Your task to perform on an android device: change notification settings in the gmail app Image 0: 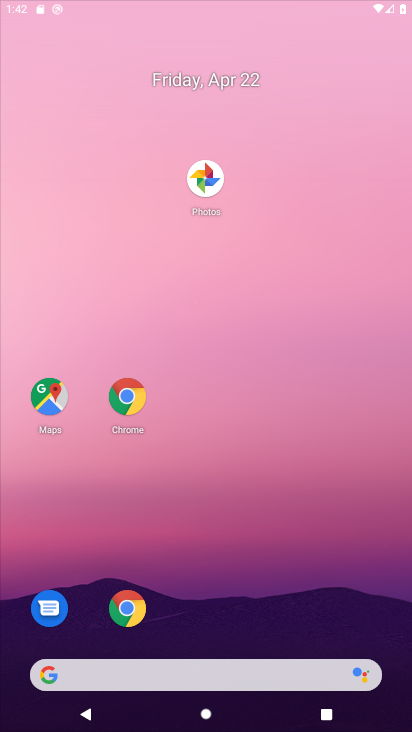
Step 0: click (281, 254)
Your task to perform on an android device: change notification settings in the gmail app Image 1: 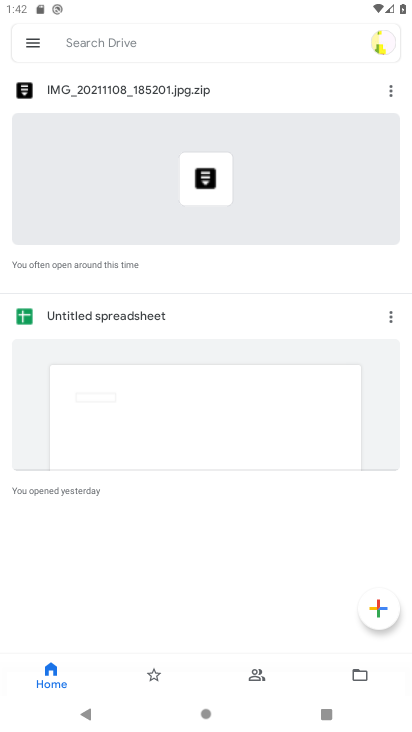
Step 1: press home button
Your task to perform on an android device: change notification settings in the gmail app Image 2: 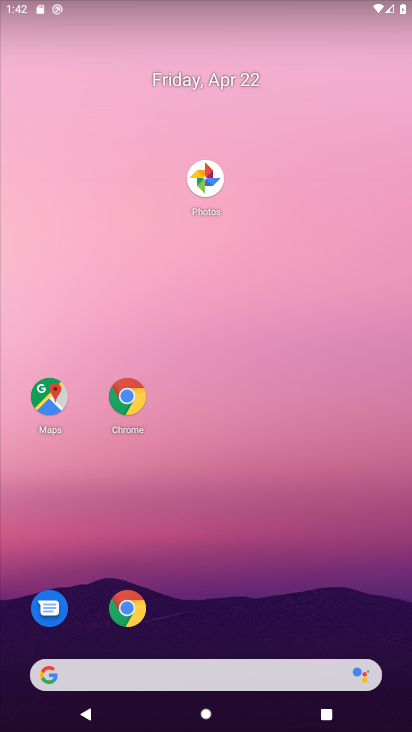
Step 2: drag from (223, 631) to (240, 122)
Your task to perform on an android device: change notification settings in the gmail app Image 3: 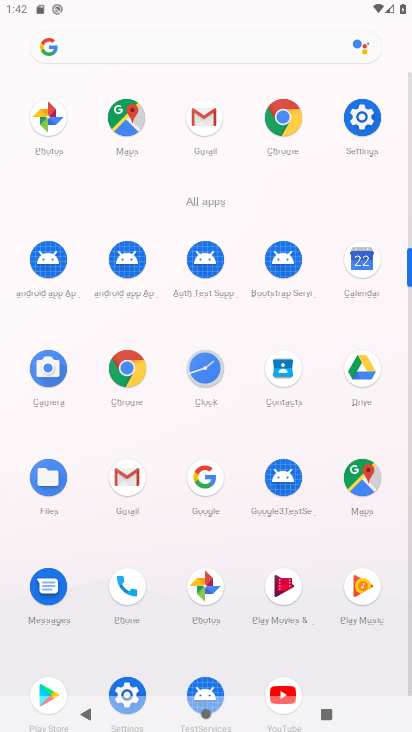
Step 3: drag from (226, 568) to (264, 43)
Your task to perform on an android device: change notification settings in the gmail app Image 4: 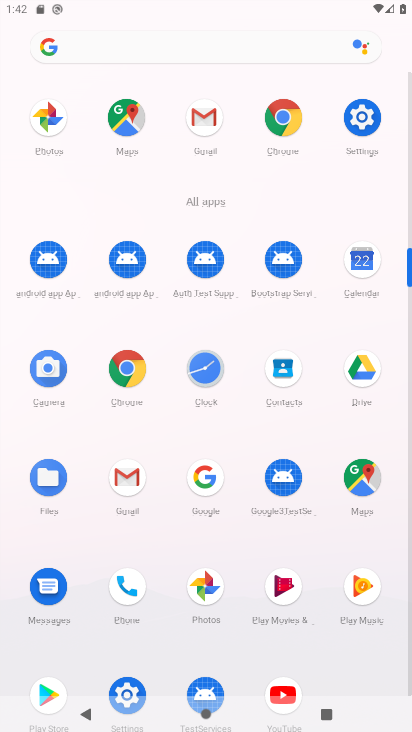
Step 4: click (121, 469)
Your task to perform on an android device: change notification settings in the gmail app Image 5: 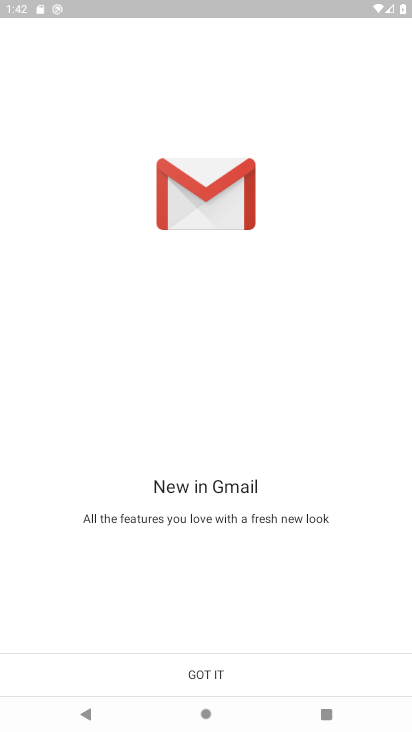
Step 5: click (206, 662)
Your task to perform on an android device: change notification settings in the gmail app Image 6: 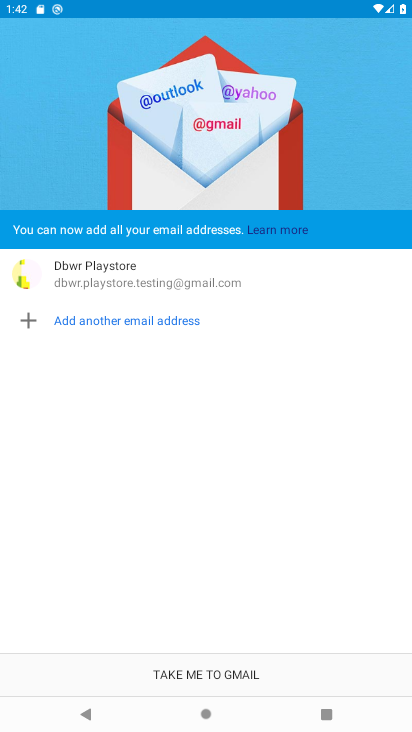
Step 6: click (202, 667)
Your task to perform on an android device: change notification settings in the gmail app Image 7: 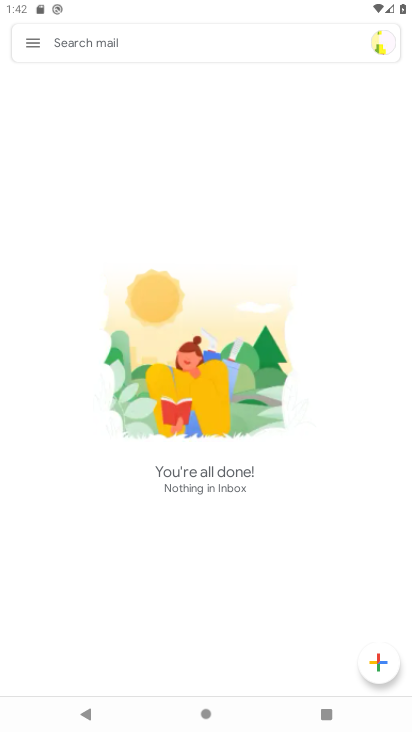
Step 7: click (30, 45)
Your task to perform on an android device: change notification settings in the gmail app Image 8: 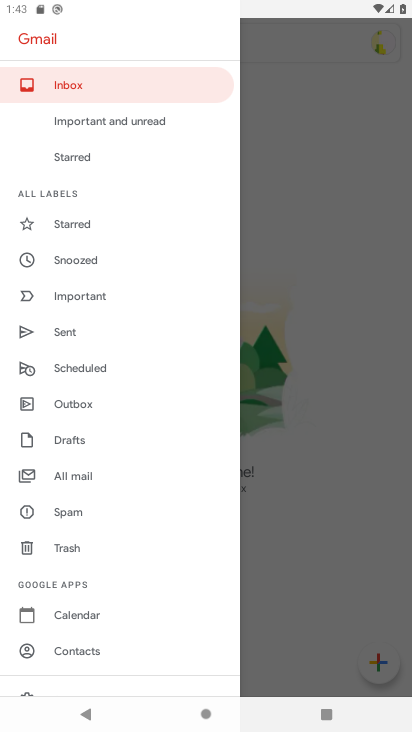
Step 8: drag from (112, 616) to (82, 263)
Your task to perform on an android device: change notification settings in the gmail app Image 9: 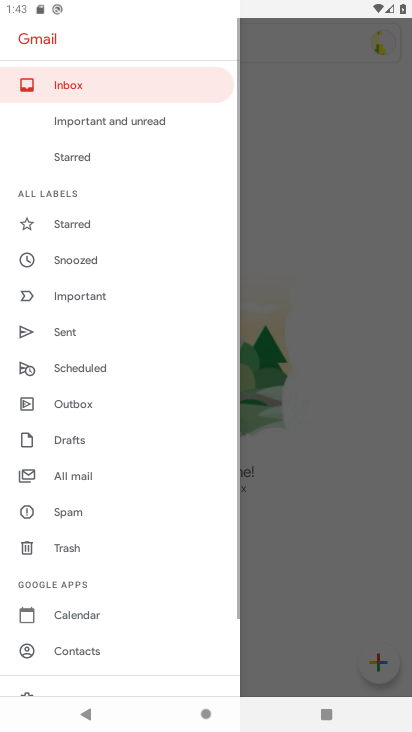
Step 9: drag from (99, 613) to (121, 176)
Your task to perform on an android device: change notification settings in the gmail app Image 10: 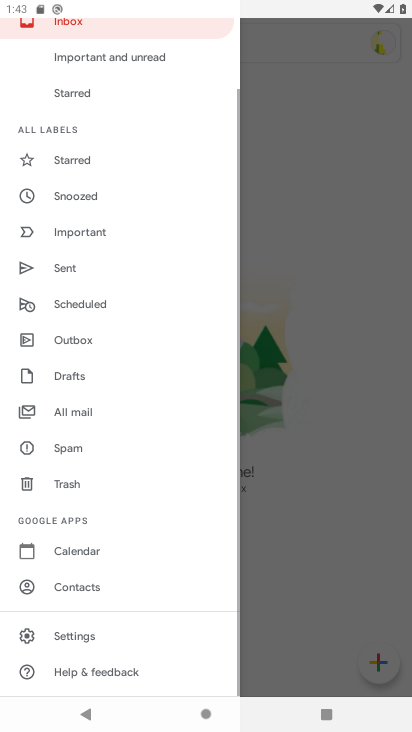
Step 10: drag from (81, 551) to (86, 87)
Your task to perform on an android device: change notification settings in the gmail app Image 11: 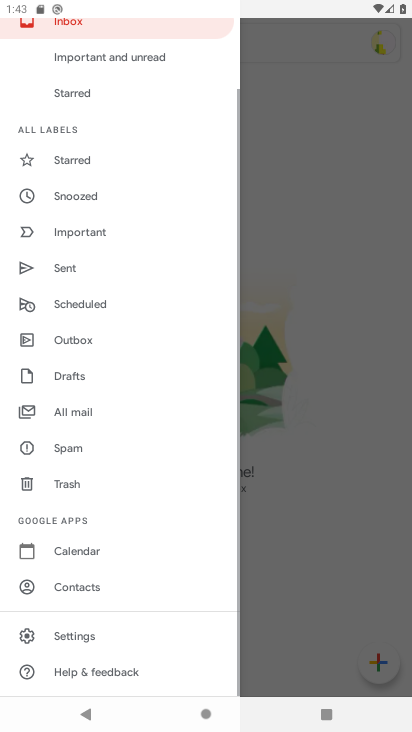
Step 11: click (81, 637)
Your task to perform on an android device: change notification settings in the gmail app Image 12: 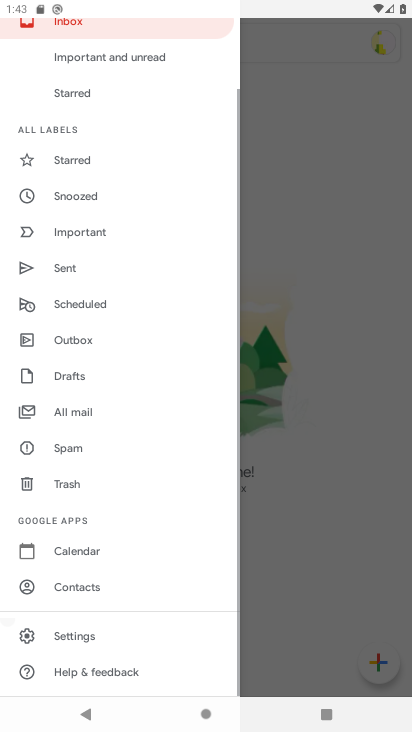
Step 12: click (81, 638)
Your task to perform on an android device: change notification settings in the gmail app Image 13: 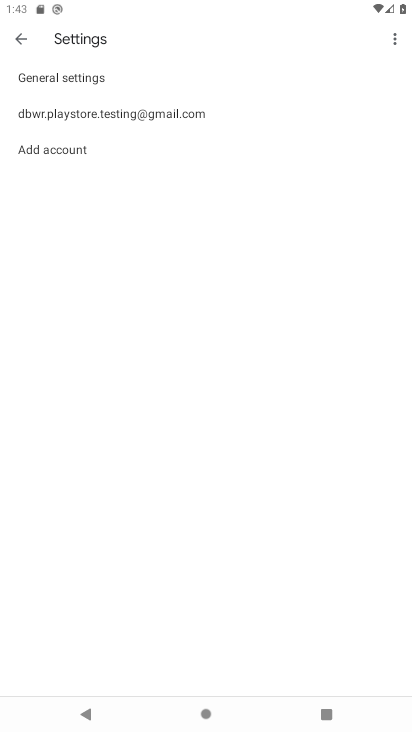
Step 13: click (102, 110)
Your task to perform on an android device: change notification settings in the gmail app Image 14: 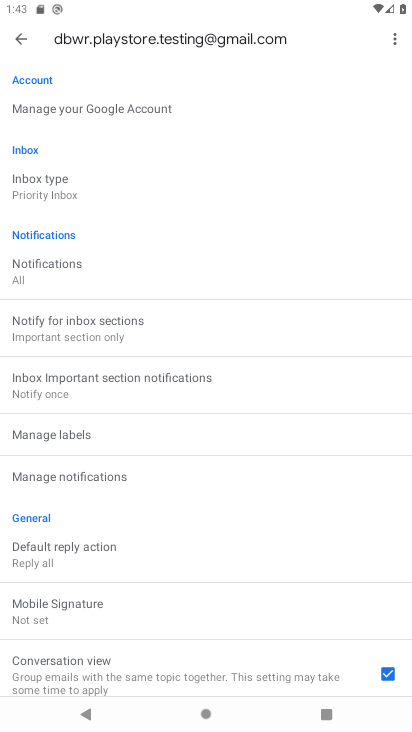
Step 14: click (40, 260)
Your task to perform on an android device: change notification settings in the gmail app Image 15: 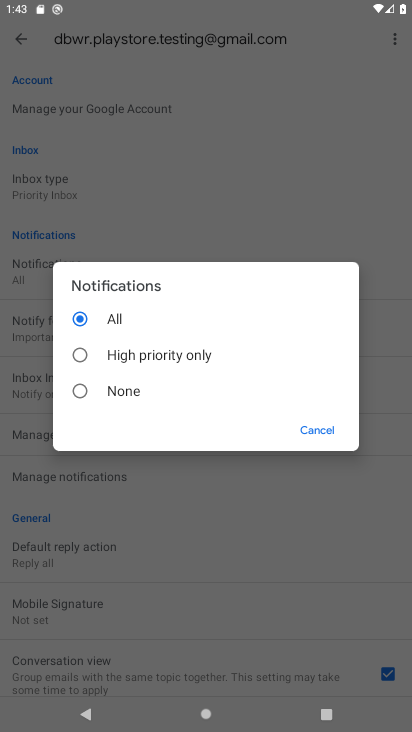
Step 15: click (76, 355)
Your task to perform on an android device: change notification settings in the gmail app Image 16: 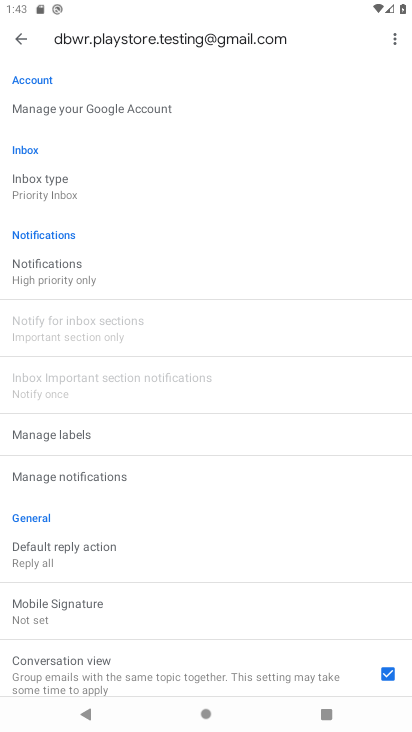
Step 16: task complete